Your task to perform on an android device: Open Google Chrome and click the shortcut for Amazon.com Image 0: 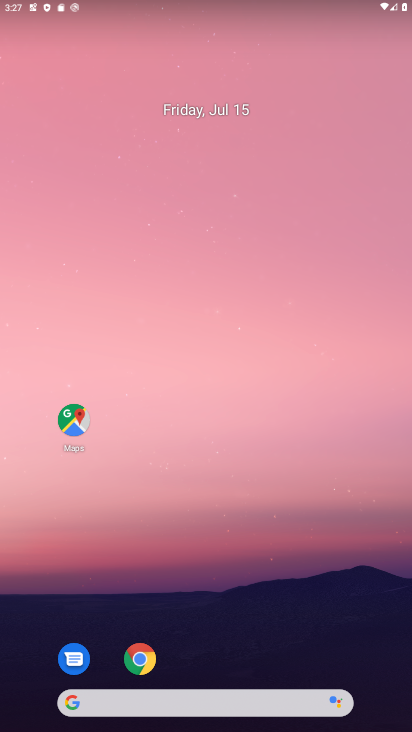
Step 0: drag from (190, 695) to (182, 292)
Your task to perform on an android device: Open Google Chrome and click the shortcut for Amazon.com Image 1: 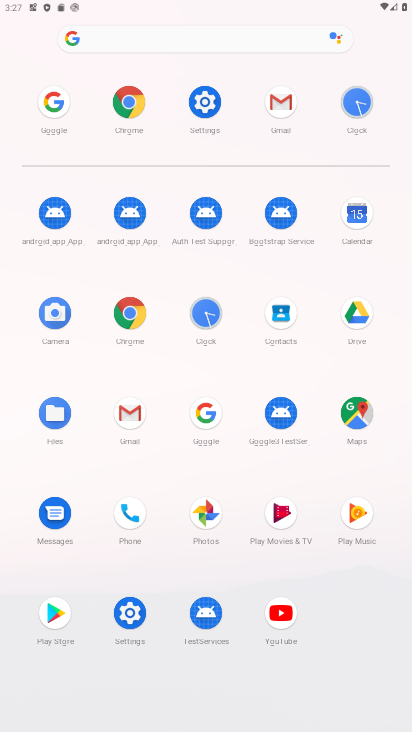
Step 1: click (131, 308)
Your task to perform on an android device: Open Google Chrome and click the shortcut for Amazon.com Image 2: 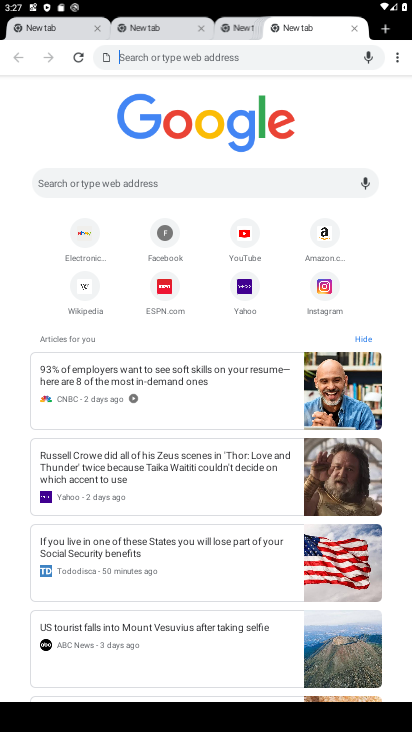
Step 2: click (238, 230)
Your task to perform on an android device: Open Google Chrome and click the shortcut for Amazon.com Image 3: 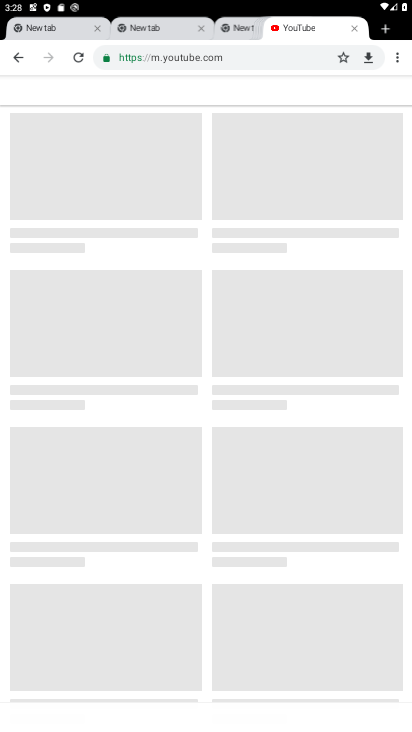
Step 3: task complete